Your task to perform on an android device: Open internet settings Image 0: 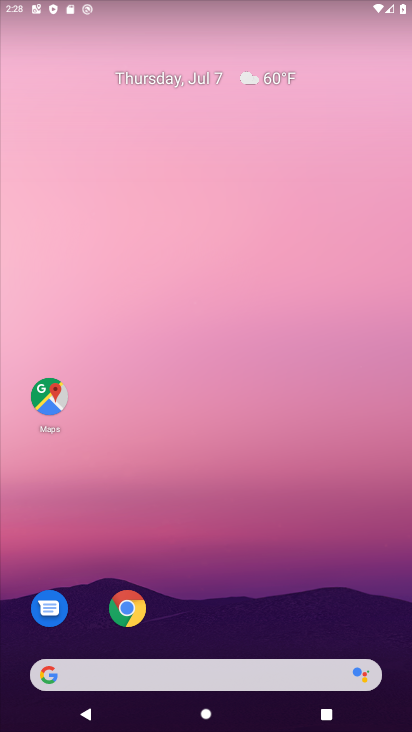
Step 0: drag from (223, 635) to (193, 49)
Your task to perform on an android device: Open internet settings Image 1: 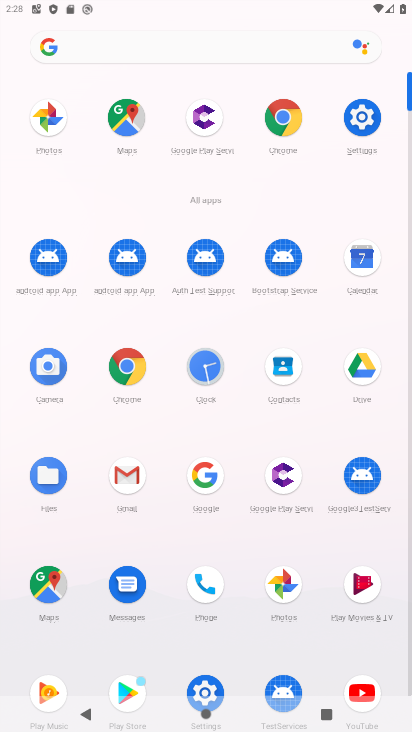
Step 1: click (359, 113)
Your task to perform on an android device: Open internet settings Image 2: 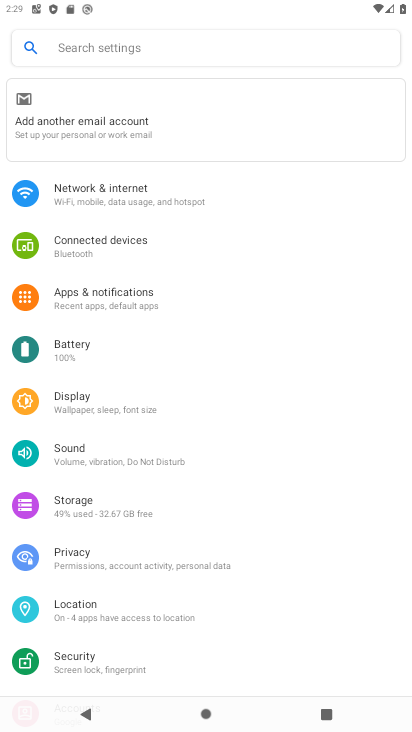
Step 2: click (154, 182)
Your task to perform on an android device: Open internet settings Image 3: 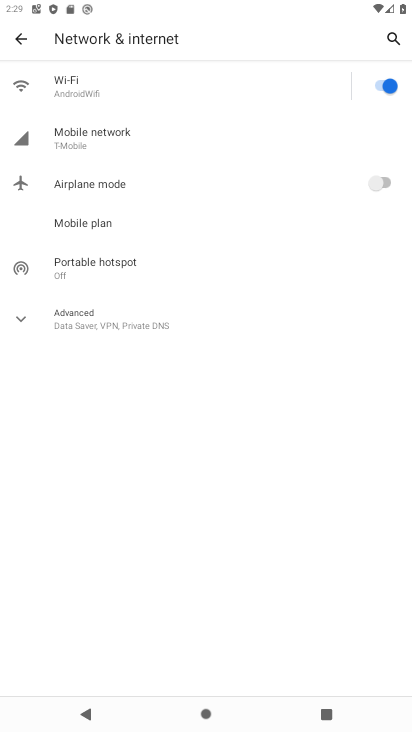
Step 3: click (20, 320)
Your task to perform on an android device: Open internet settings Image 4: 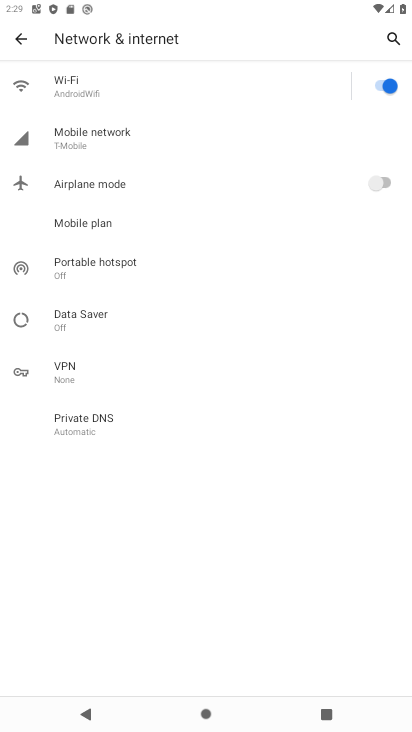
Step 4: task complete